Your task to perform on an android device: change notifications settings Image 0: 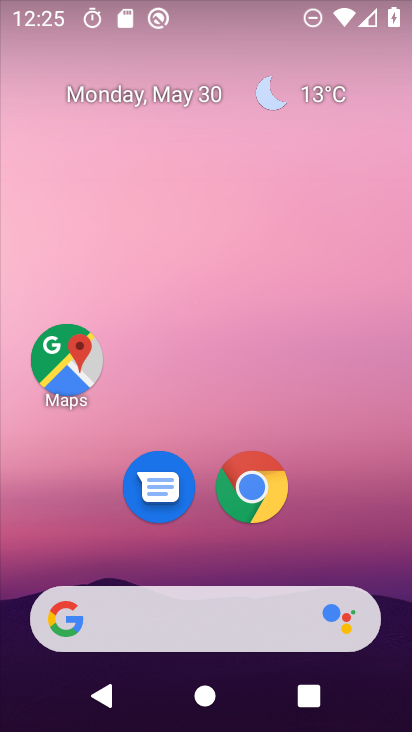
Step 0: drag from (391, 699) to (314, 326)
Your task to perform on an android device: change notifications settings Image 1: 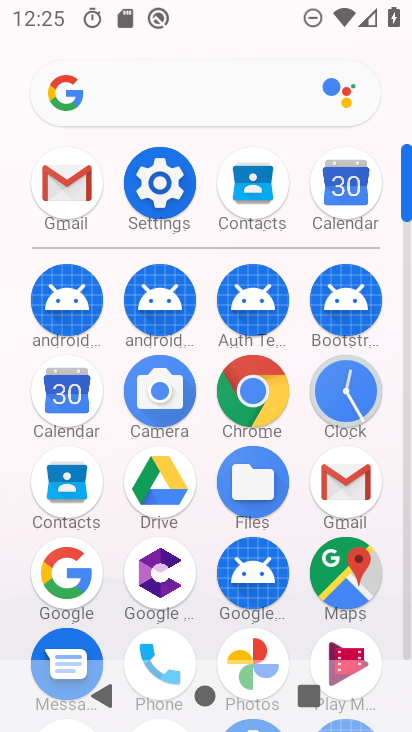
Step 1: click (160, 194)
Your task to perform on an android device: change notifications settings Image 2: 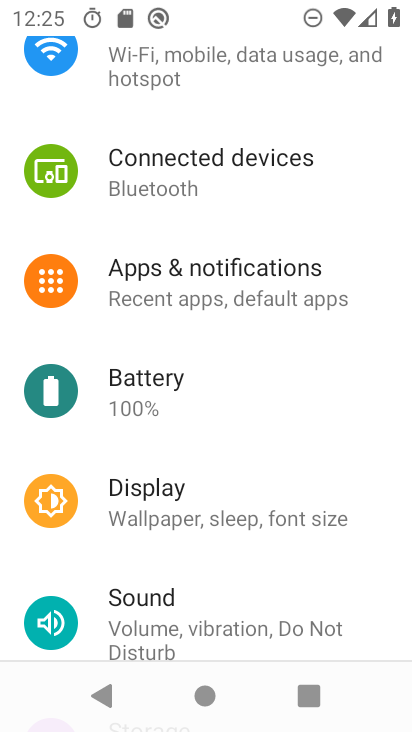
Step 2: click (178, 289)
Your task to perform on an android device: change notifications settings Image 3: 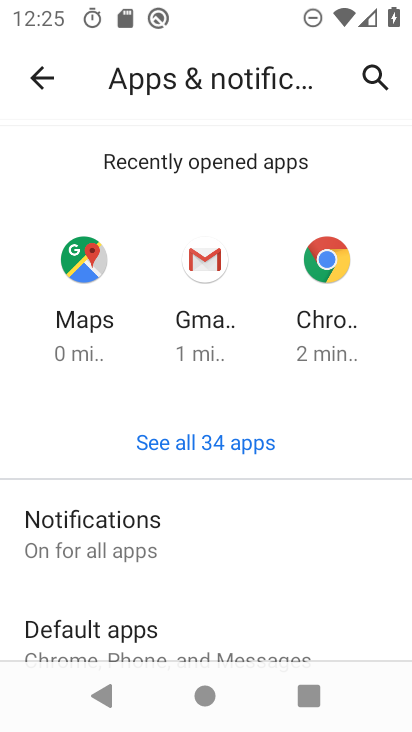
Step 3: click (128, 539)
Your task to perform on an android device: change notifications settings Image 4: 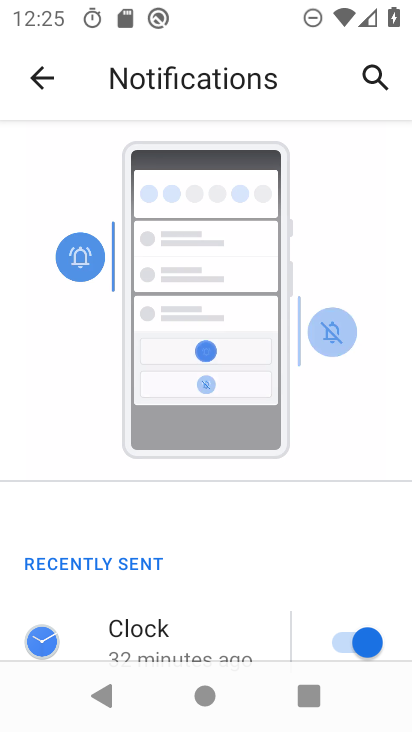
Step 4: drag from (270, 611) to (239, 236)
Your task to perform on an android device: change notifications settings Image 5: 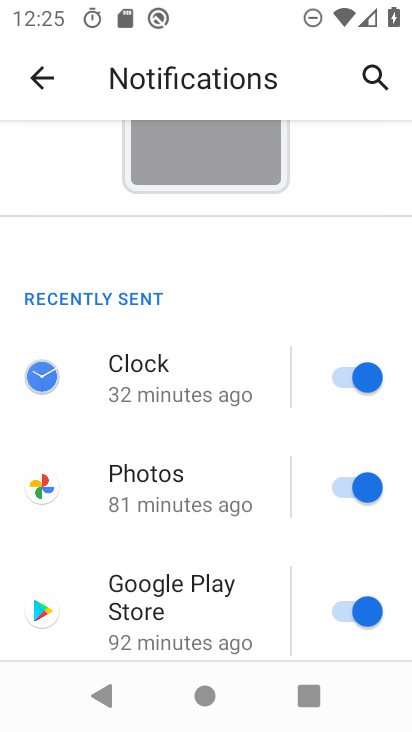
Step 5: click (336, 371)
Your task to perform on an android device: change notifications settings Image 6: 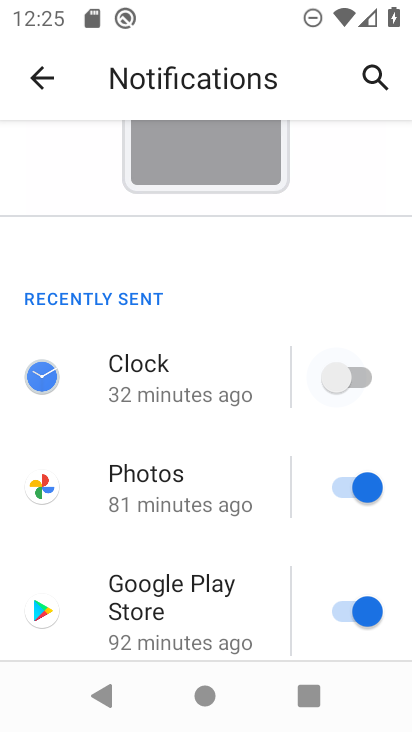
Step 6: click (341, 479)
Your task to perform on an android device: change notifications settings Image 7: 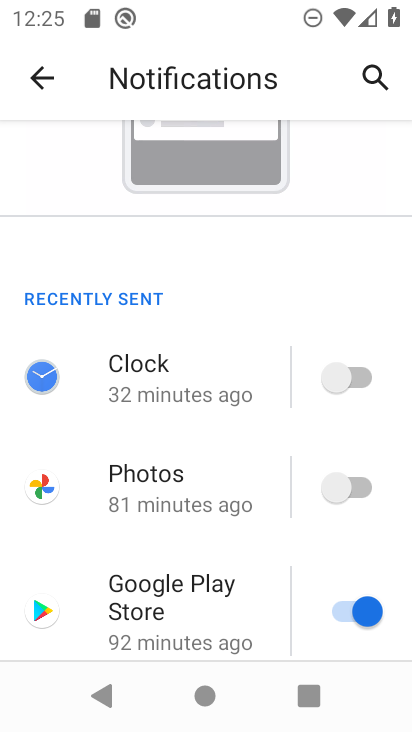
Step 7: click (338, 610)
Your task to perform on an android device: change notifications settings Image 8: 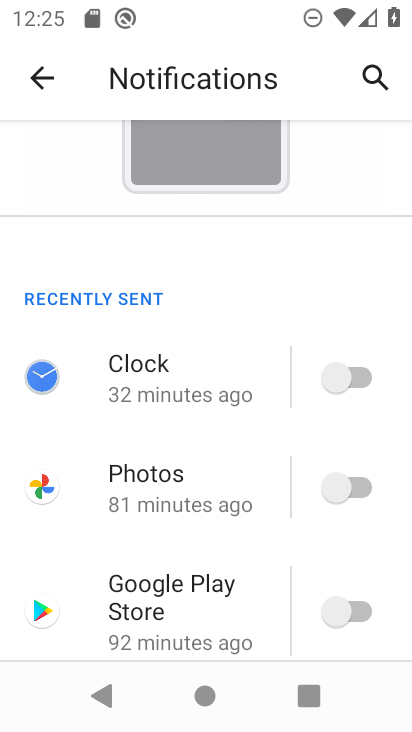
Step 8: task complete